Your task to perform on an android device: allow cookies in the chrome app Image 0: 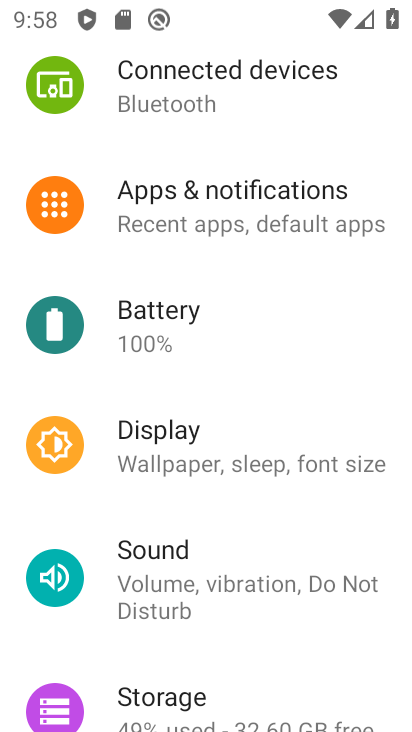
Step 0: press back button
Your task to perform on an android device: allow cookies in the chrome app Image 1: 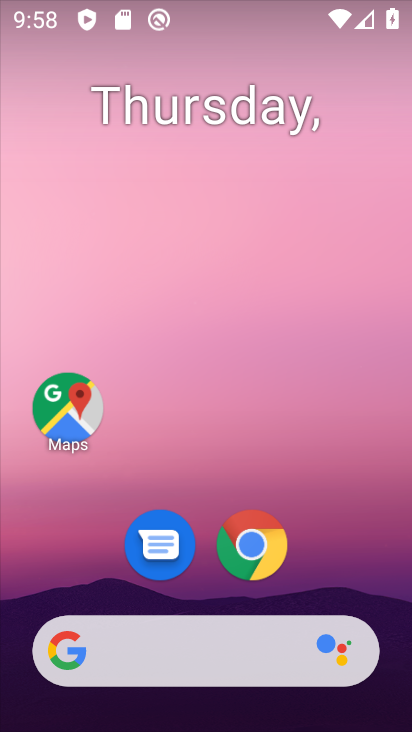
Step 1: click (250, 543)
Your task to perform on an android device: allow cookies in the chrome app Image 2: 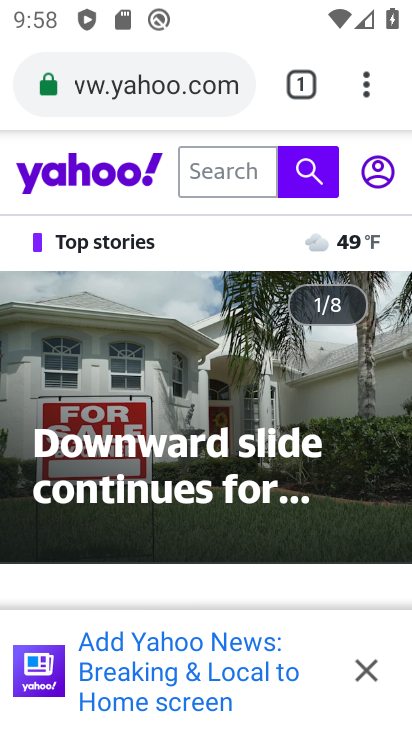
Step 2: click (366, 82)
Your task to perform on an android device: allow cookies in the chrome app Image 3: 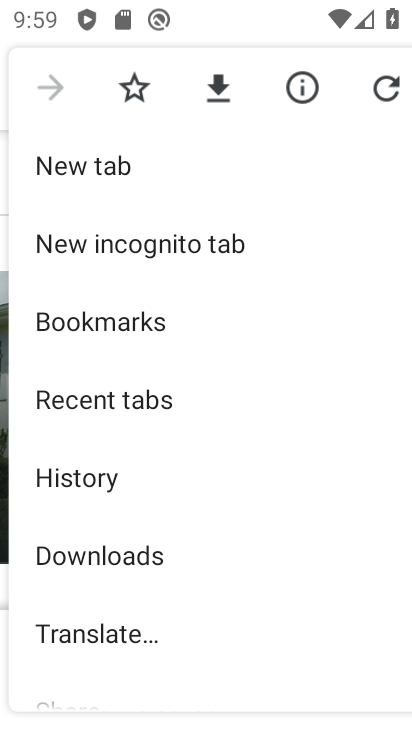
Step 3: drag from (152, 500) to (164, 410)
Your task to perform on an android device: allow cookies in the chrome app Image 4: 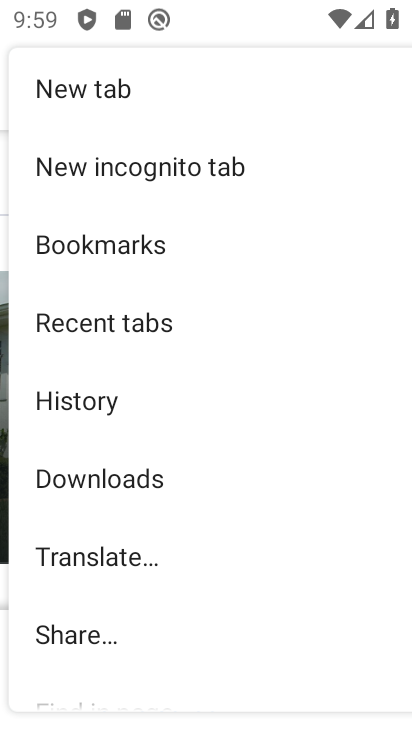
Step 4: drag from (109, 605) to (149, 518)
Your task to perform on an android device: allow cookies in the chrome app Image 5: 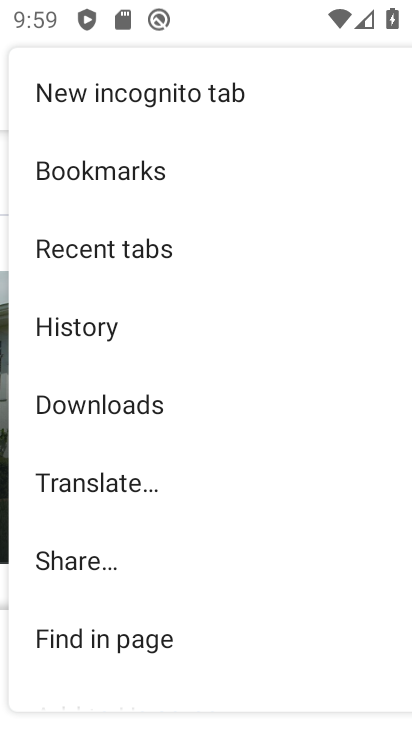
Step 5: drag from (106, 590) to (170, 452)
Your task to perform on an android device: allow cookies in the chrome app Image 6: 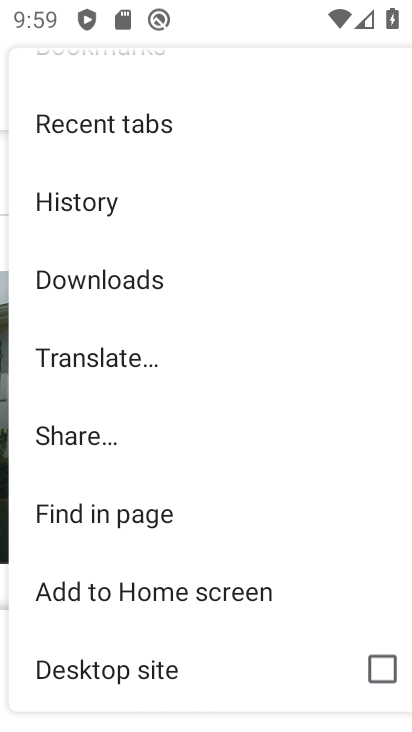
Step 6: drag from (107, 554) to (190, 411)
Your task to perform on an android device: allow cookies in the chrome app Image 7: 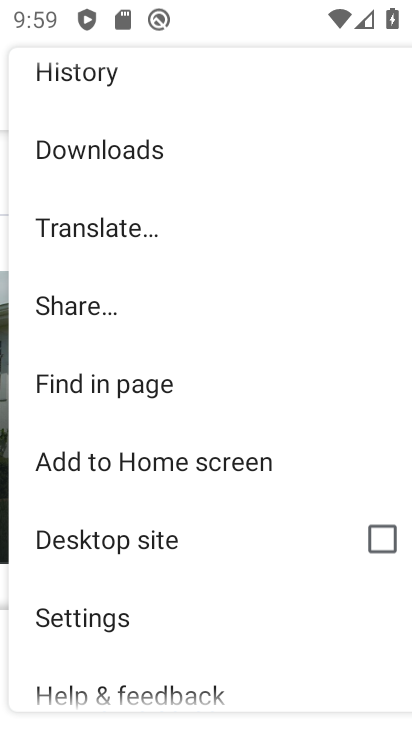
Step 7: click (70, 611)
Your task to perform on an android device: allow cookies in the chrome app Image 8: 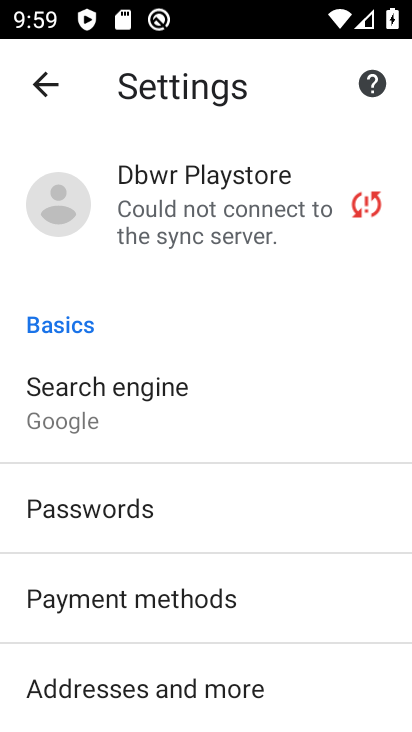
Step 8: drag from (121, 587) to (168, 485)
Your task to perform on an android device: allow cookies in the chrome app Image 9: 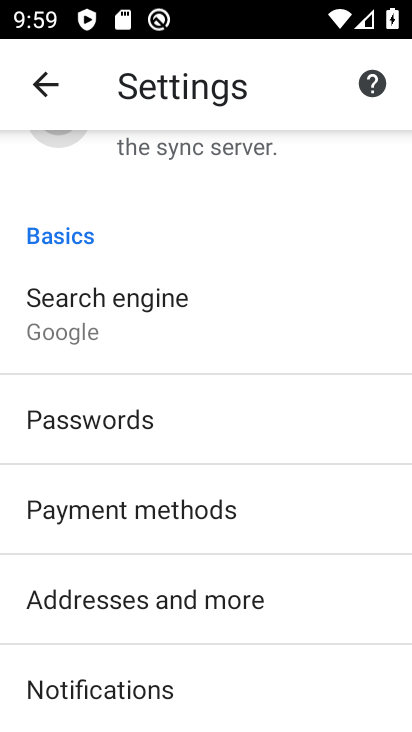
Step 9: drag from (134, 625) to (189, 523)
Your task to perform on an android device: allow cookies in the chrome app Image 10: 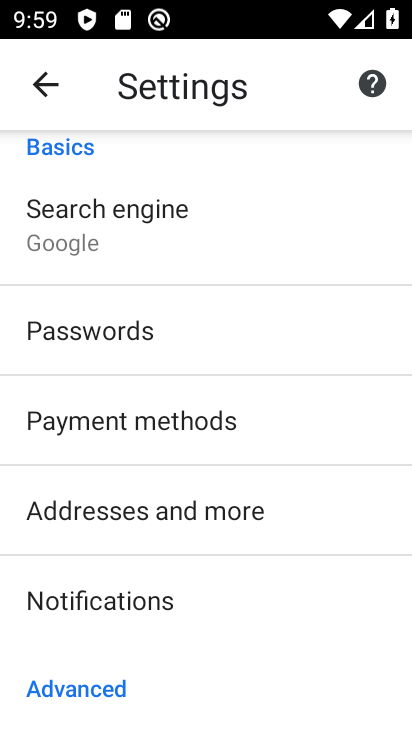
Step 10: drag from (132, 657) to (231, 525)
Your task to perform on an android device: allow cookies in the chrome app Image 11: 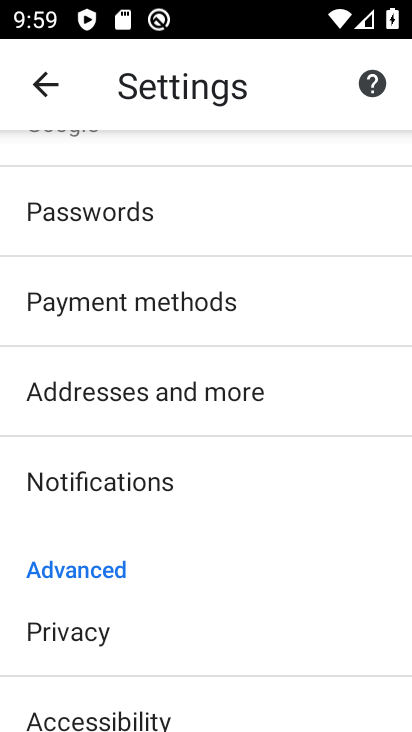
Step 11: drag from (112, 649) to (179, 484)
Your task to perform on an android device: allow cookies in the chrome app Image 12: 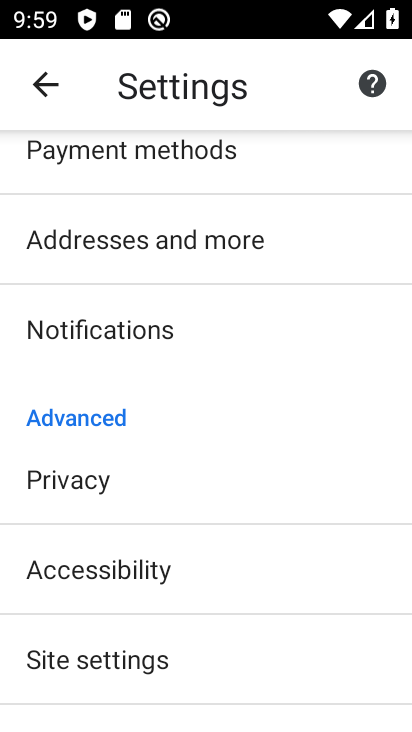
Step 12: drag from (130, 602) to (195, 513)
Your task to perform on an android device: allow cookies in the chrome app Image 13: 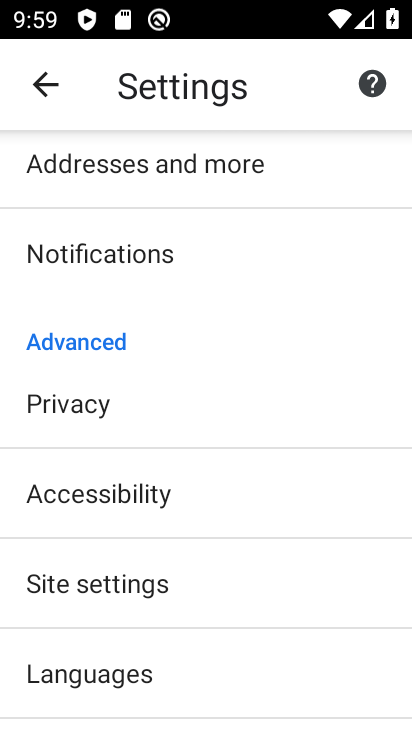
Step 13: click (125, 580)
Your task to perform on an android device: allow cookies in the chrome app Image 14: 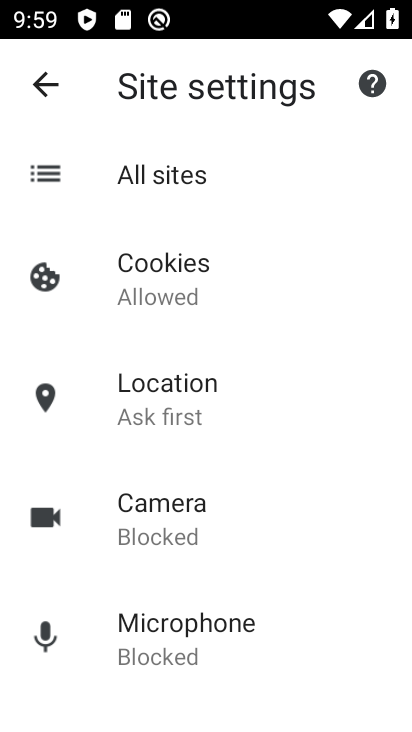
Step 14: click (174, 297)
Your task to perform on an android device: allow cookies in the chrome app Image 15: 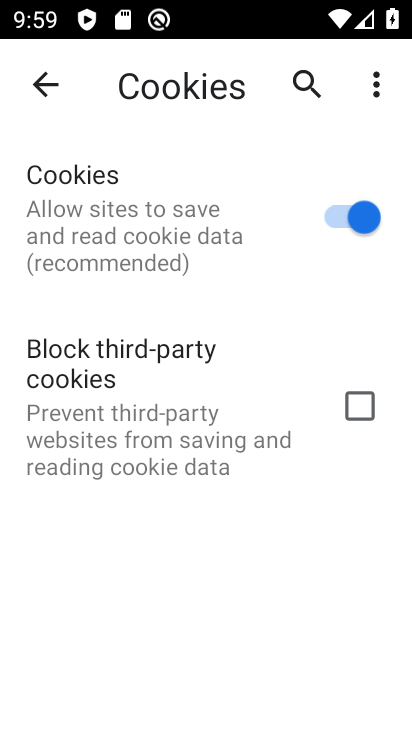
Step 15: click (357, 407)
Your task to perform on an android device: allow cookies in the chrome app Image 16: 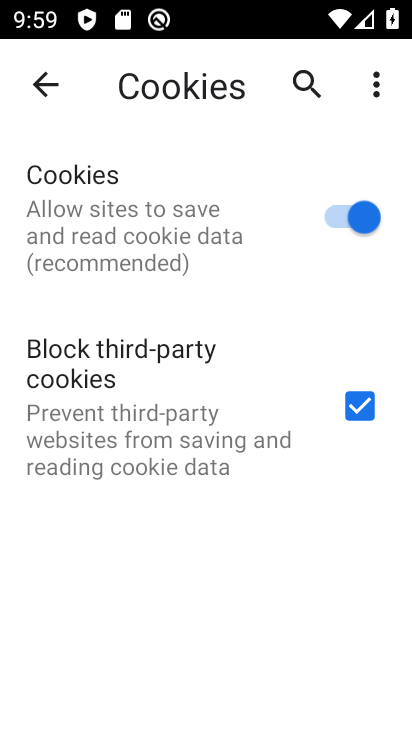
Step 16: task complete